Your task to perform on an android device: delete browsing data in the chrome app Image 0: 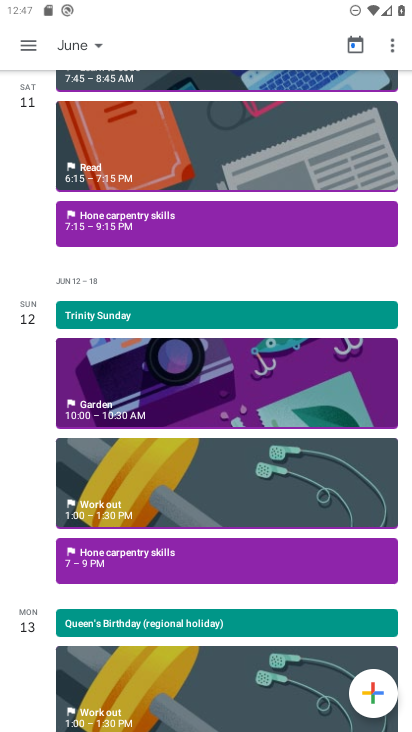
Step 0: press home button
Your task to perform on an android device: delete browsing data in the chrome app Image 1: 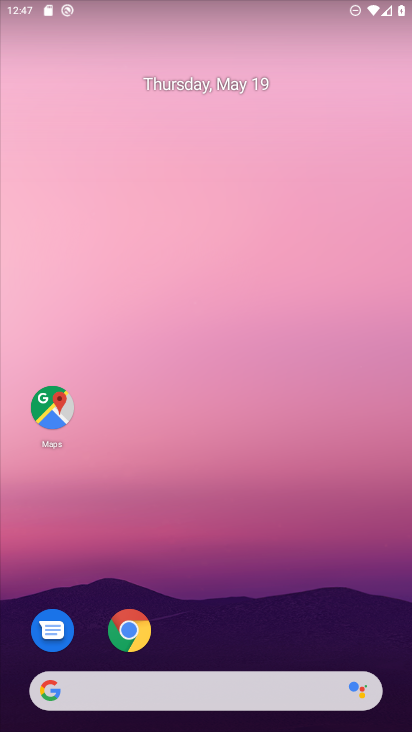
Step 1: click (137, 629)
Your task to perform on an android device: delete browsing data in the chrome app Image 2: 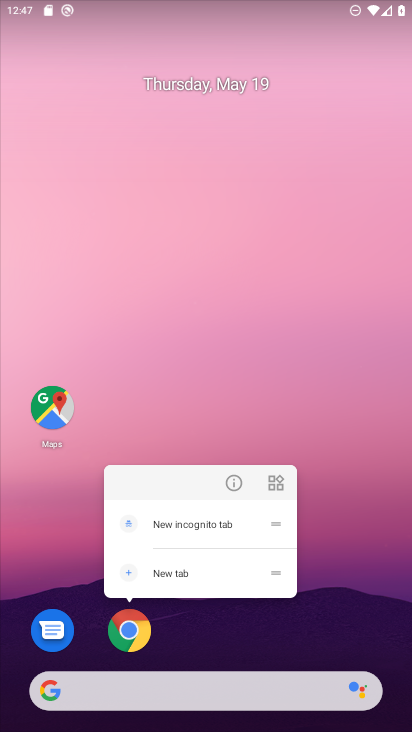
Step 2: click (234, 473)
Your task to perform on an android device: delete browsing data in the chrome app Image 3: 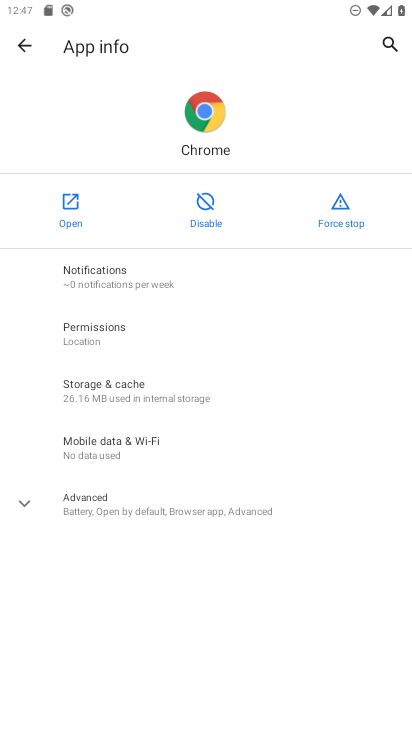
Step 3: click (65, 222)
Your task to perform on an android device: delete browsing data in the chrome app Image 4: 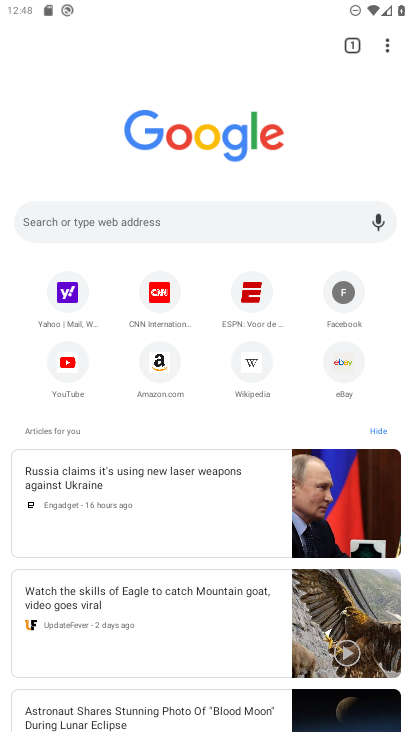
Step 4: click (392, 35)
Your task to perform on an android device: delete browsing data in the chrome app Image 5: 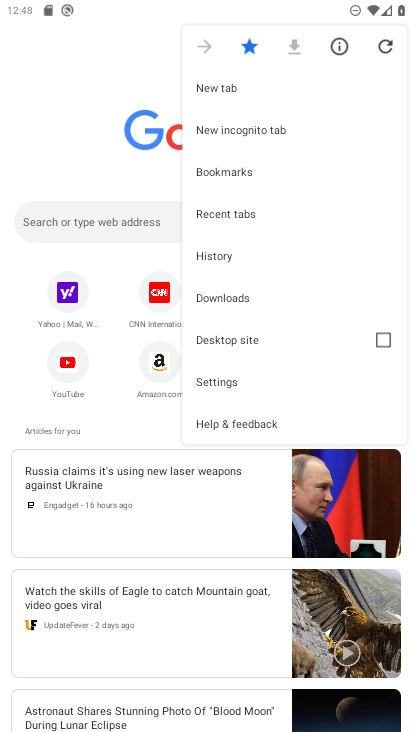
Step 5: click (247, 260)
Your task to perform on an android device: delete browsing data in the chrome app Image 6: 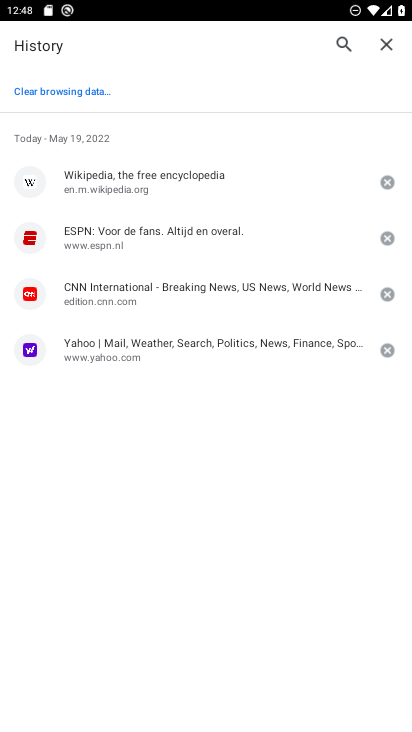
Step 6: click (72, 88)
Your task to perform on an android device: delete browsing data in the chrome app Image 7: 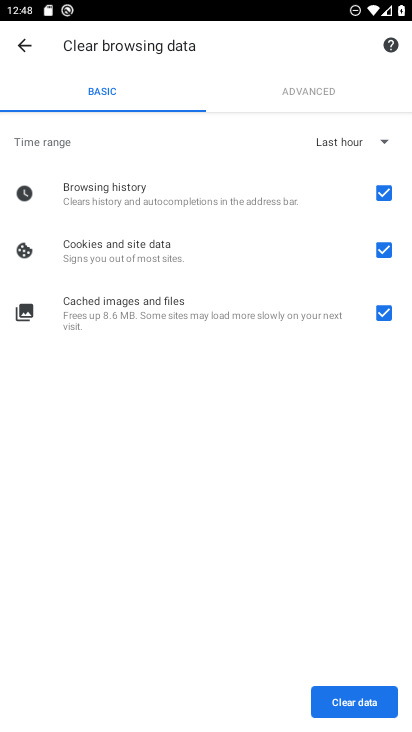
Step 7: click (352, 711)
Your task to perform on an android device: delete browsing data in the chrome app Image 8: 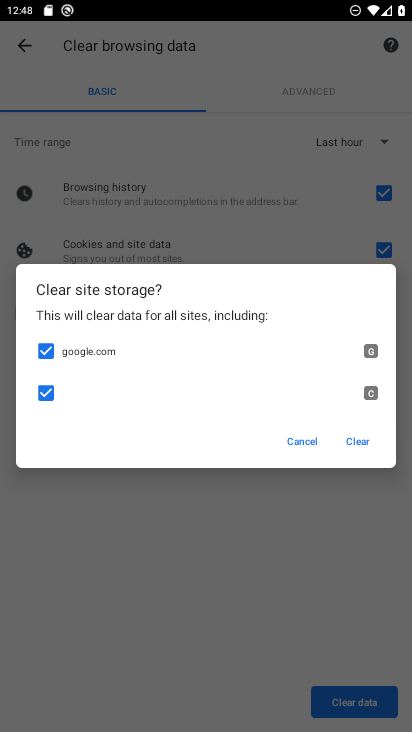
Step 8: click (362, 459)
Your task to perform on an android device: delete browsing data in the chrome app Image 9: 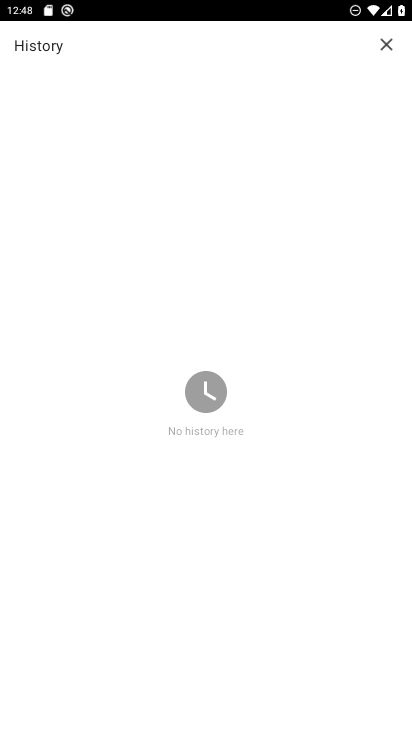
Step 9: task complete